Your task to perform on an android device: Open notification settings Image 0: 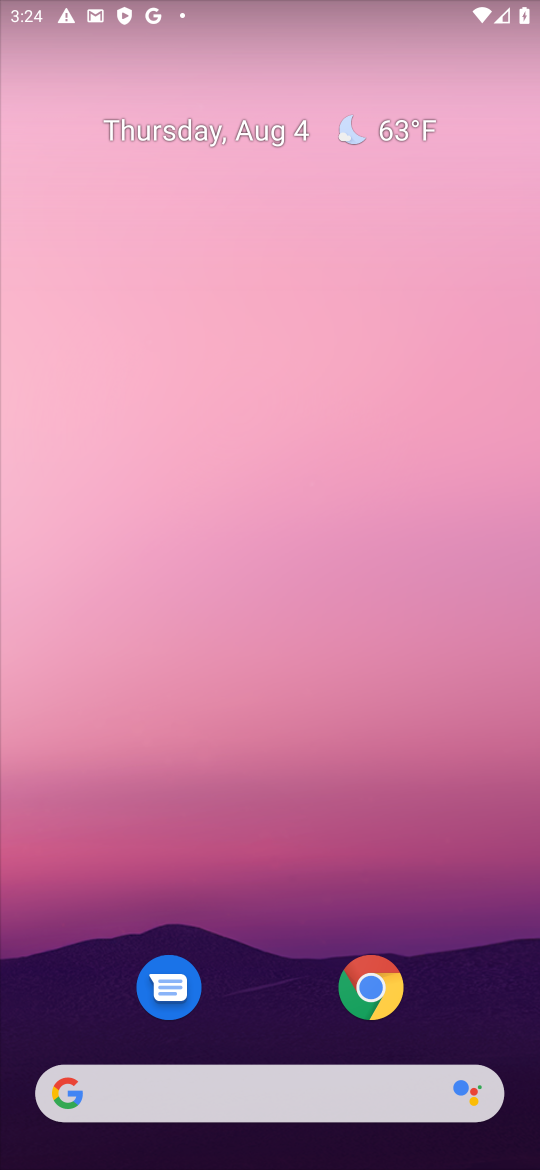
Step 0: click (394, 147)
Your task to perform on an android device: Open notification settings Image 1: 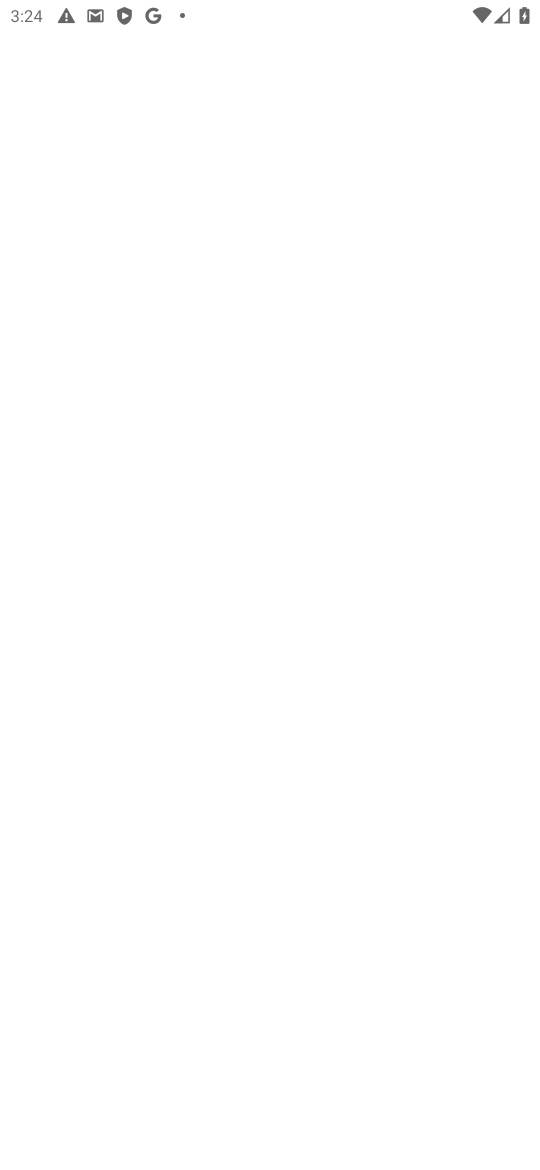
Step 1: drag from (218, 627) to (249, 307)
Your task to perform on an android device: Open notification settings Image 2: 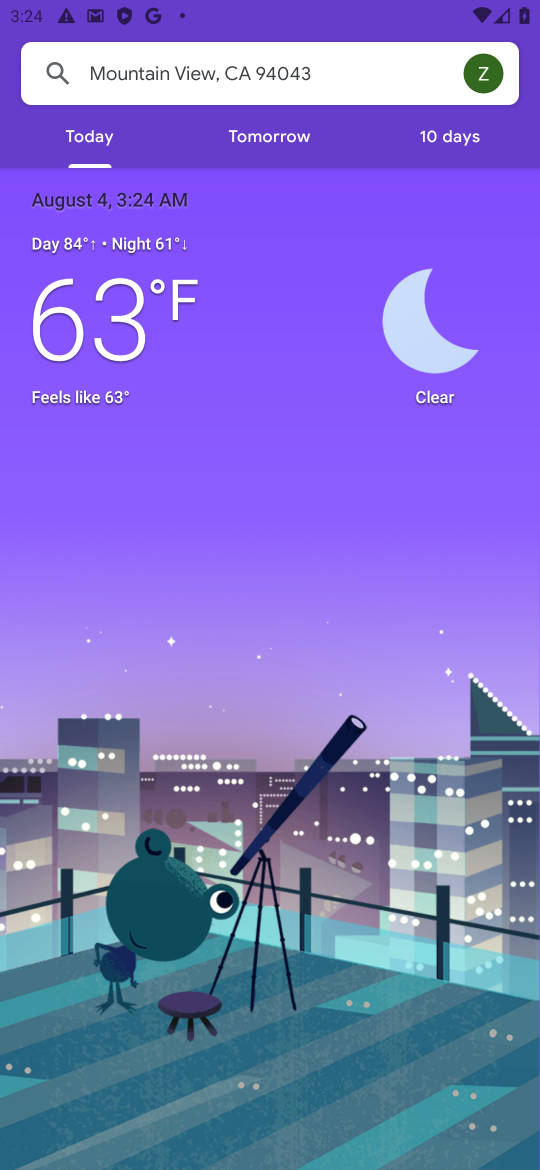
Step 2: press back button
Your task to perform on an android device: Open notification settings Image 3: 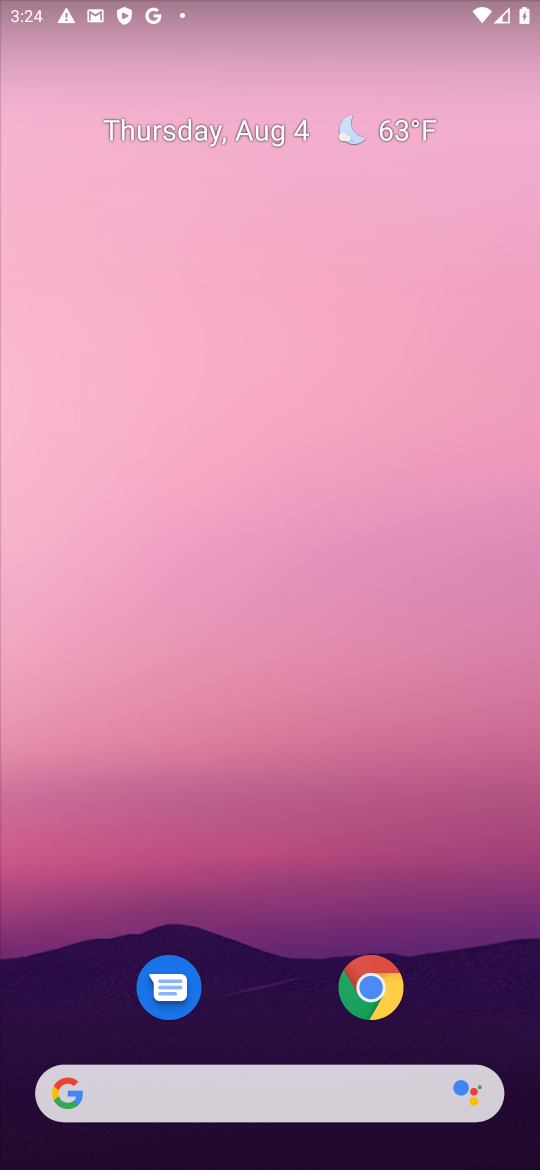
Step 3: drag from (248, 624) to (256, 236)
Your task to perform on an android device: Open notification settings Image 4: 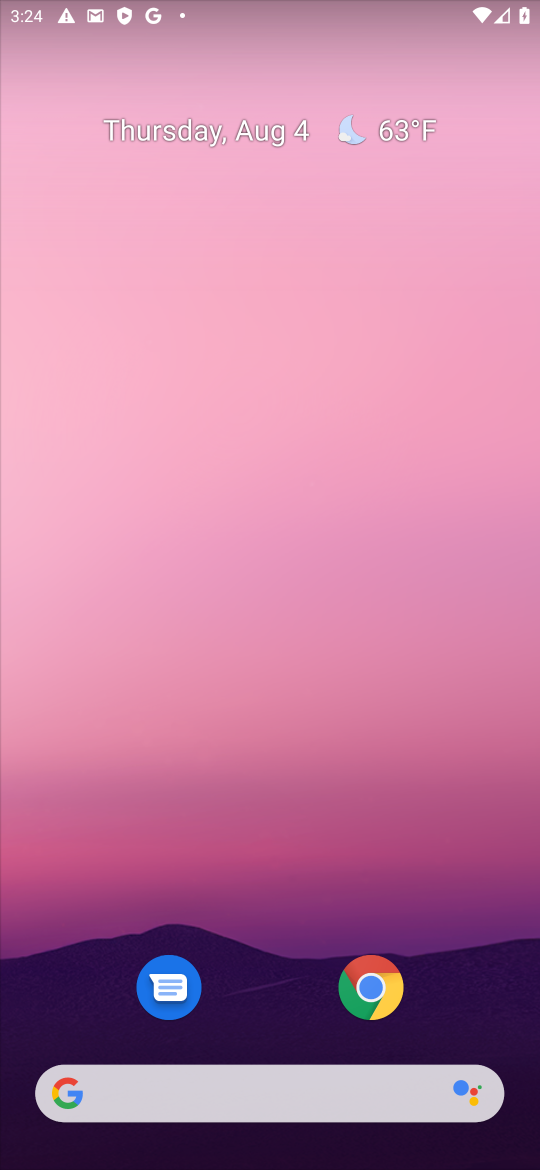
Step 4: drag from (230, 989) to (297, 133)
Your task to perform on an android device: Open notification settings Image 5: 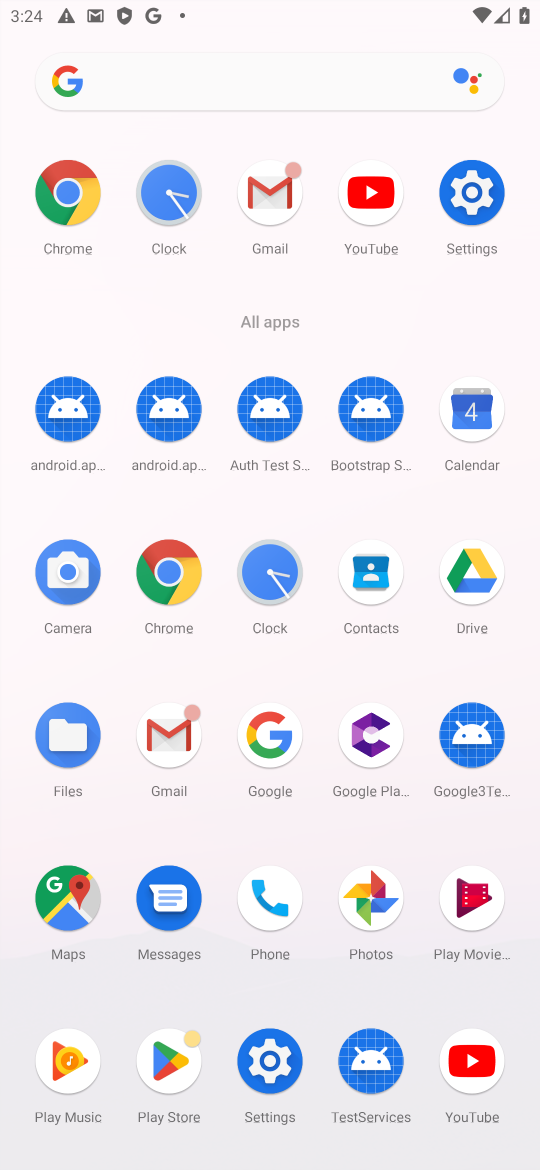
Step 5: click (484, 179)
Your task to perform on an android device: Open notification settings Image 6: 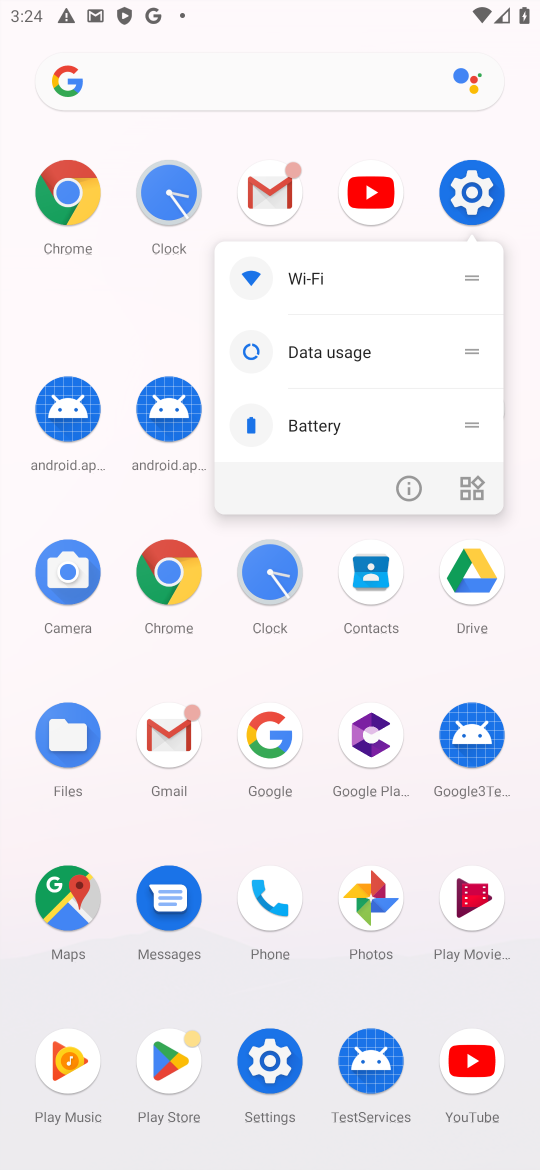
Step 6: click (473, 190)
Your task to perform on an android device: Open notification settings Image 7: 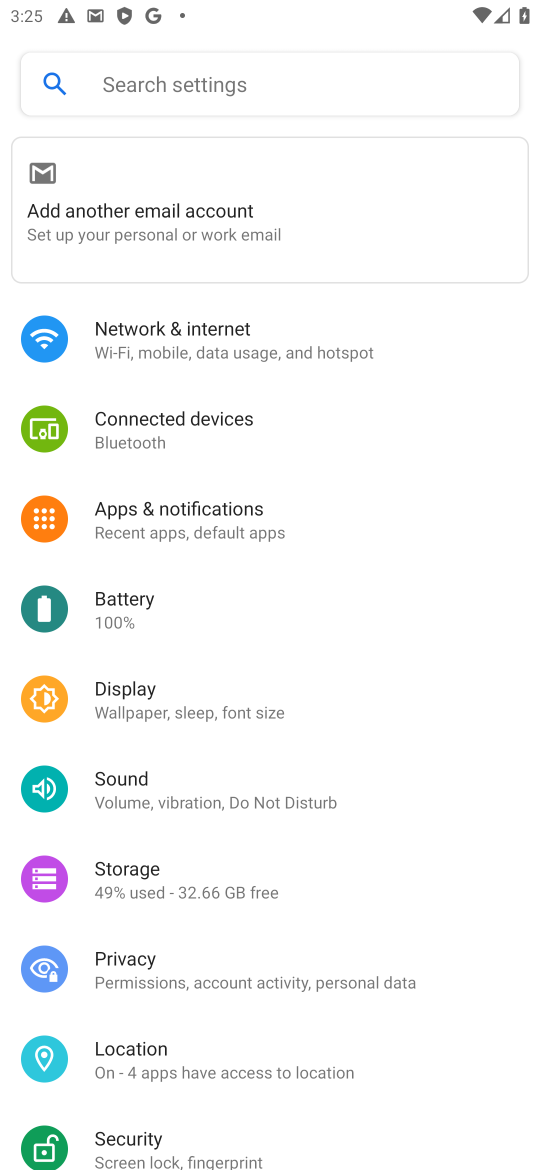
Step 7: click (180, 523)
Your task to perform on an android device: Open notification settings Image 8: 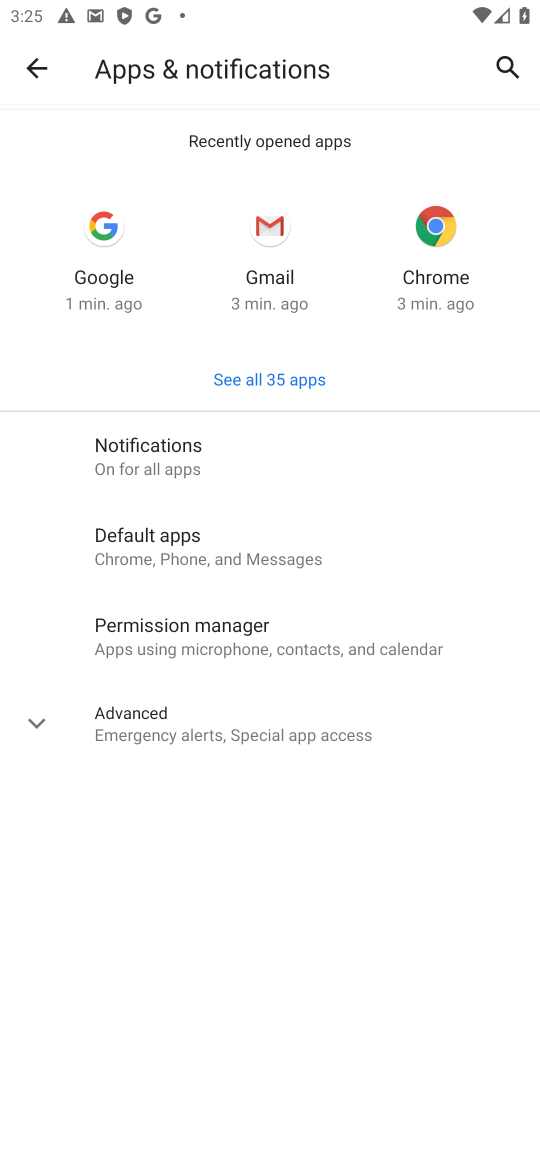
Step 8: task complete